Your task to perform on an android device: Search for pizza restaurants on Maps Image 0: 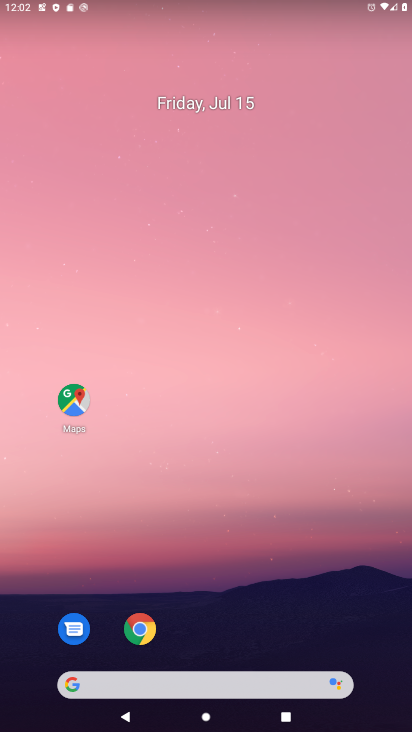
Step 0: press home button
Your task to perform on an android device: Search for pizza restaurants on Maps Image 1: 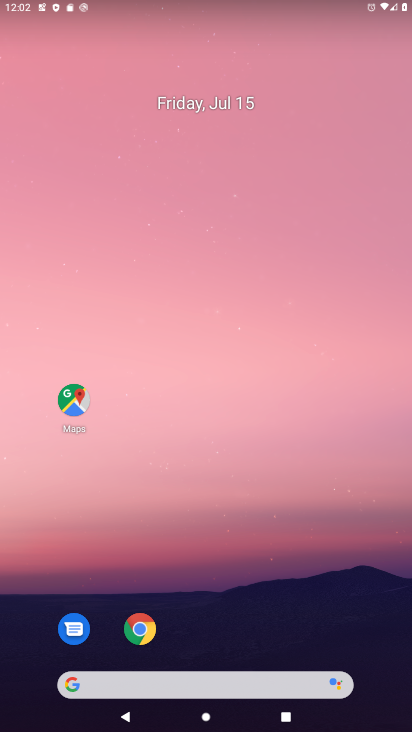
Step 1: drag from (241, 628) to (76, 3)
Your task to perform on an android device: Search for pizza restaurants on Maps Image 2: 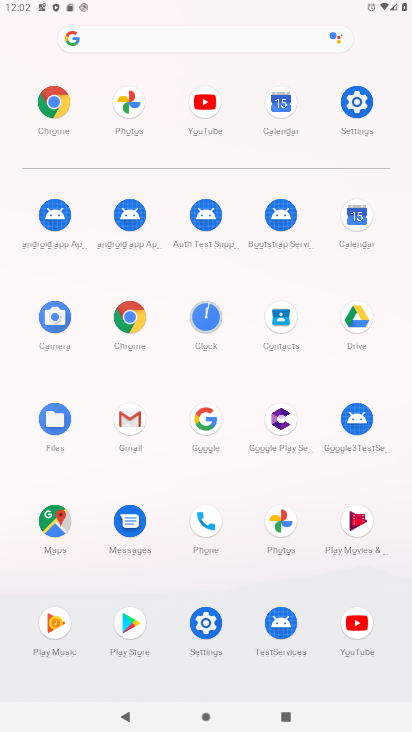
Step 2: click (49, 530)
Your task to perform on an android device: Search for pizza restaurants on Maps Image 3: 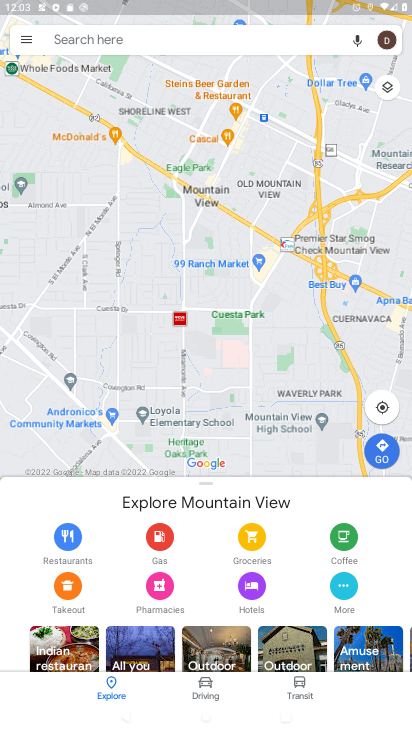
Step 3: click (193, 33)
Your task to perform on an android device: Search for pizza restaurants on Maps Image 4: 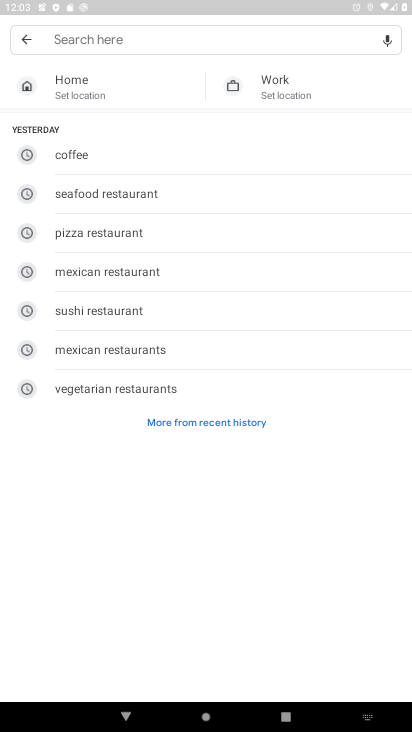
Step 4: click (104, 230)
Your task to perform on an android device: Search for pizza restaurants on Maps Image 5: 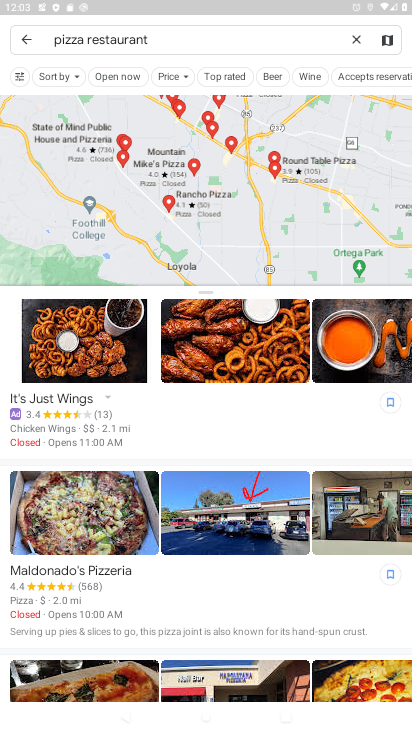
Step 5: task complete